Your task to perform on an android device: See recent photos Image 0: 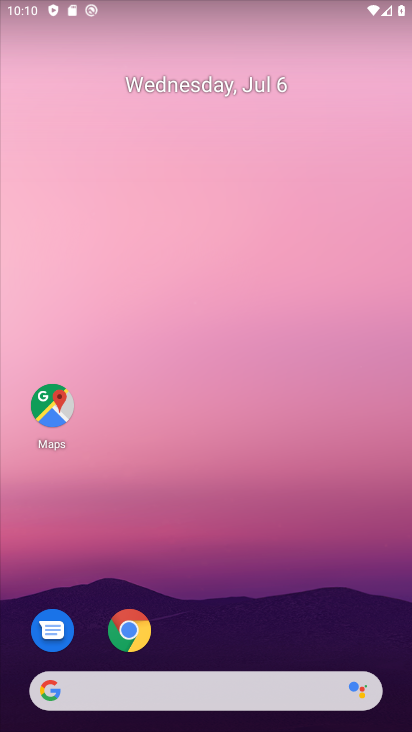
Step 0: drag from (165, 660) to (229, 70)
Your task to perform on an android device: See recent photos Image 1: 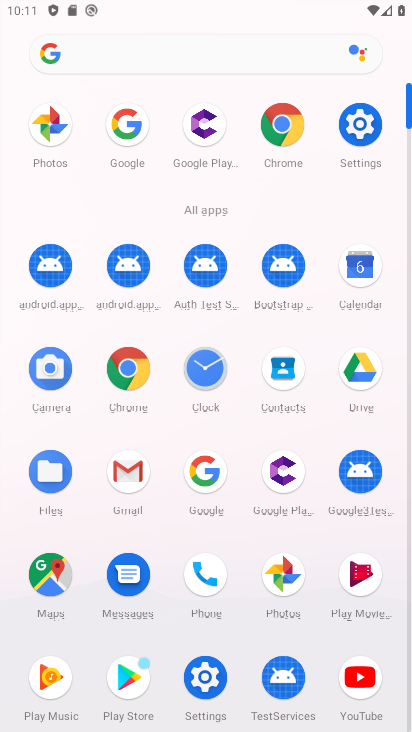
Step 1: click (290, 574)
Your task to perform on an android device: See recent photos Image 2: 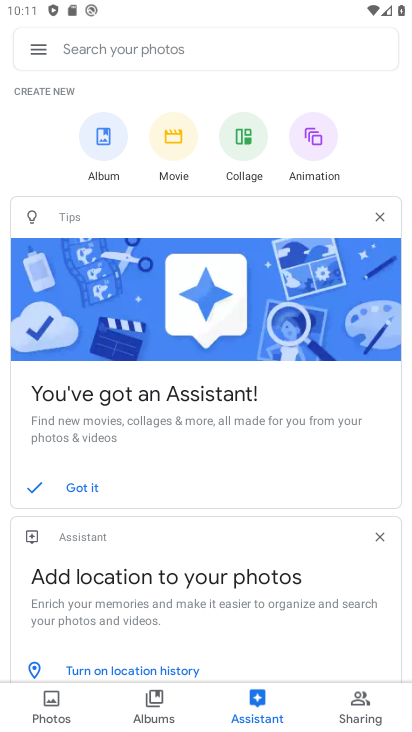
Step 2: press back button
Your task to perform on an android device: See recent photos Image 3: 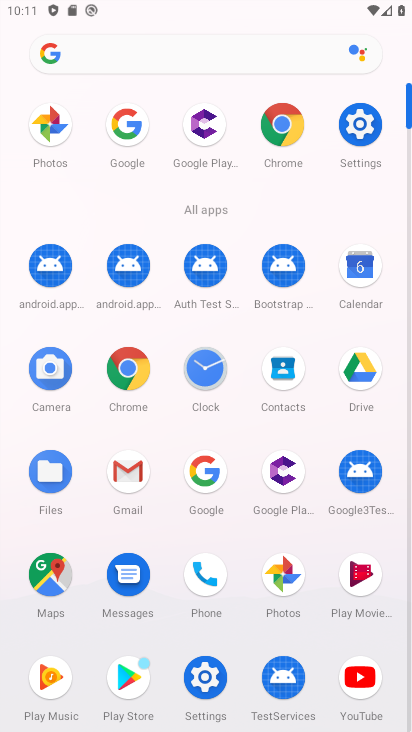
Step 3: click (285, 573)
Your task to perform on an android device: See recent photos Image 4: 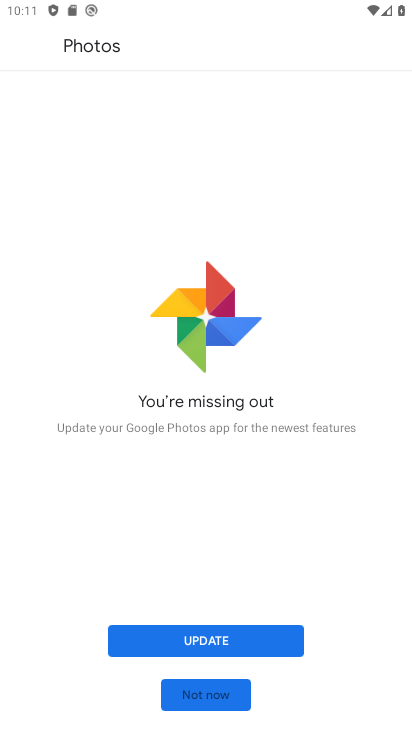
Step 4: click (212, 631)
Your task to perform on an android device: See recent photos Image 5: 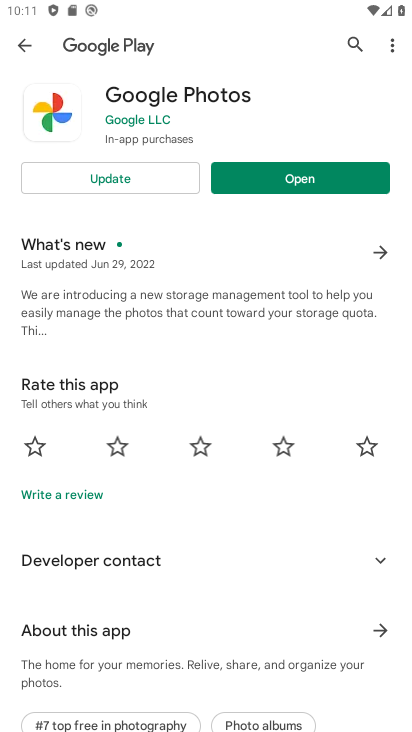
Step 5: click (121, 172)
Your task to perform on an android device: See recent photos Image 6: 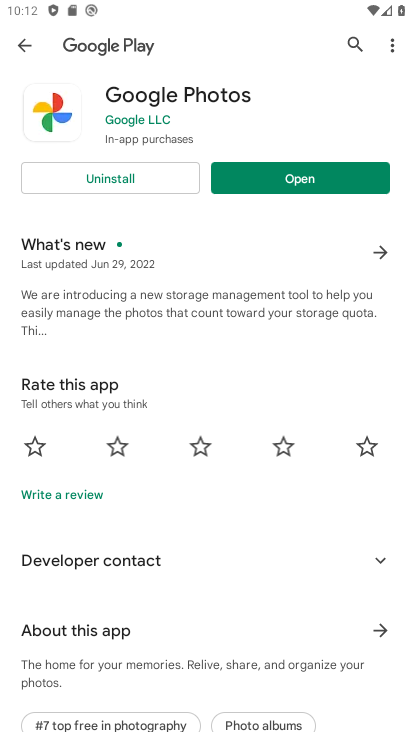
Step 6: click (354, 174)
Your task to perform on an android device: See recent photos Image 7: 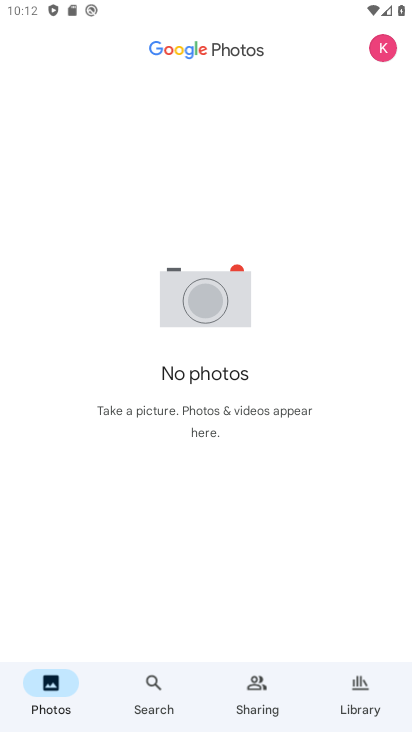
Step 7: task complete